Your task to perform on an android device: turn vacation reply on in the gmail app Image 0: 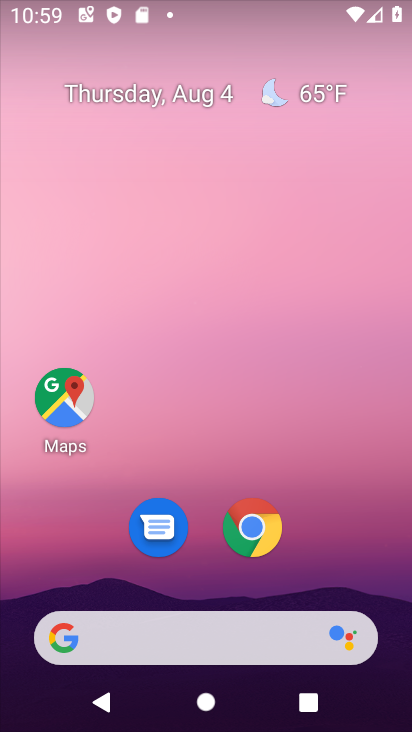
Step 0: drag from (161, 683) to (411, 45)
Your task to perform on an android device: turn vacation reply on in the gmail app Image 1: 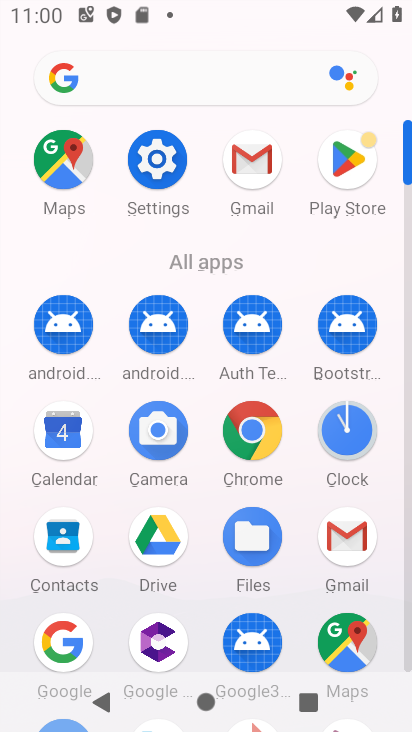
Step 1: click (269, 279)
Your task to perform on an android device: turn vacation reply on in the gmail app Image 2: 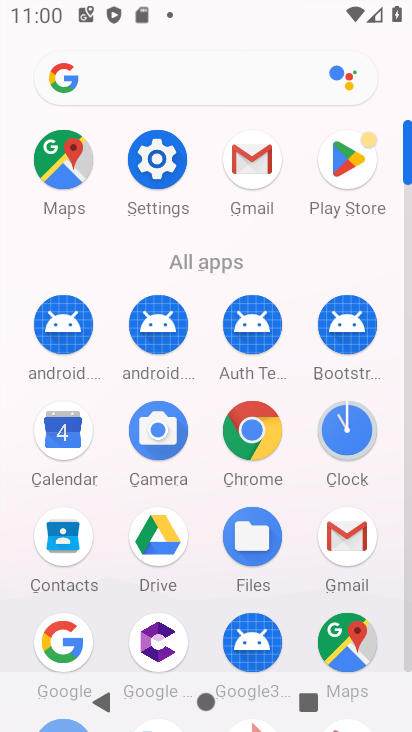
Step 2: click (271, 207)
Your task to perform on an android device: turn vacation reply on in the gmail app Image 3: 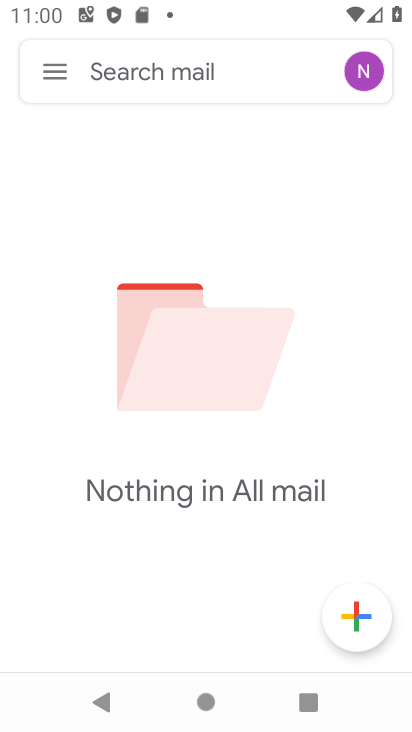
Step 3: click (43, 66)
Your task to perform on an android device: turn vacation reply on in the gmail app Image 4: 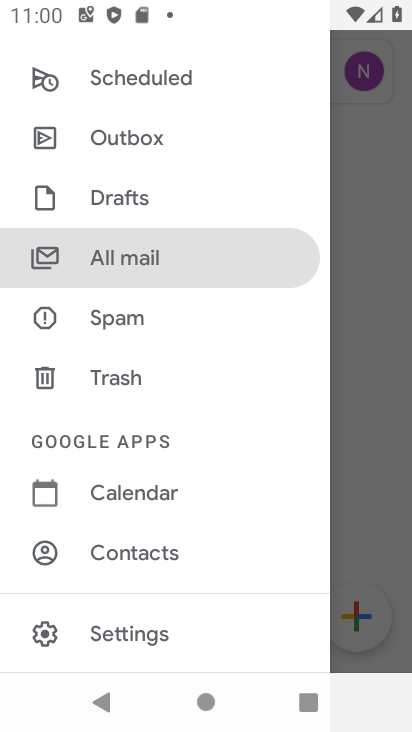
Step 4: click (144, 629)
Your task to perform on an android device: turn vacation reply on in the gmail app Image 5: 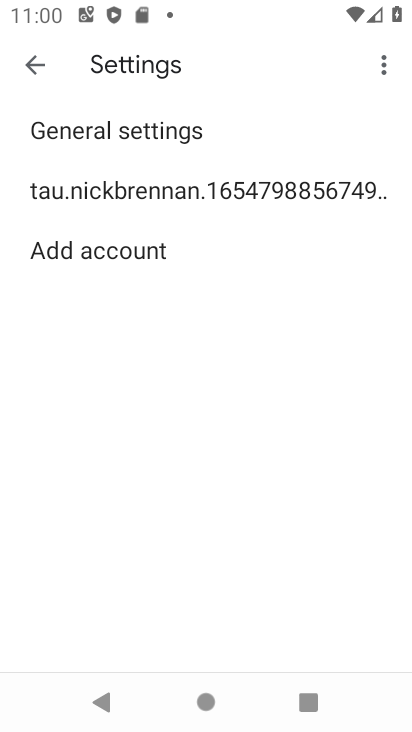
Step 5: click (271, 198)
Your task to perform on an android device: turn vacation reply on in the gmail app Image 6: 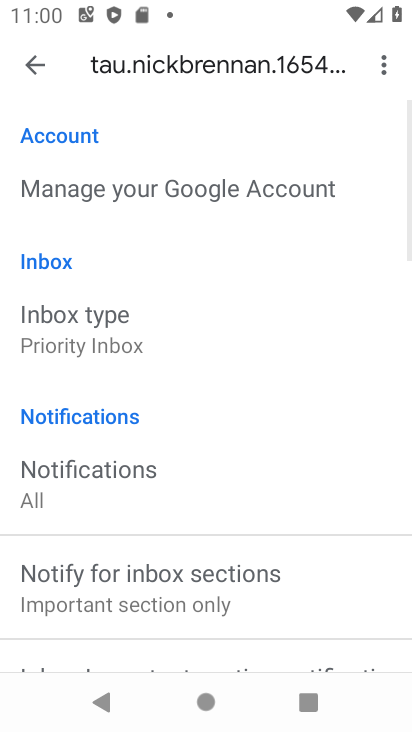
Step 6: drag from (200, 554) to (324, 28)
Your task to perform on an android device: turn vacation reply on in the gmail app Image 7: 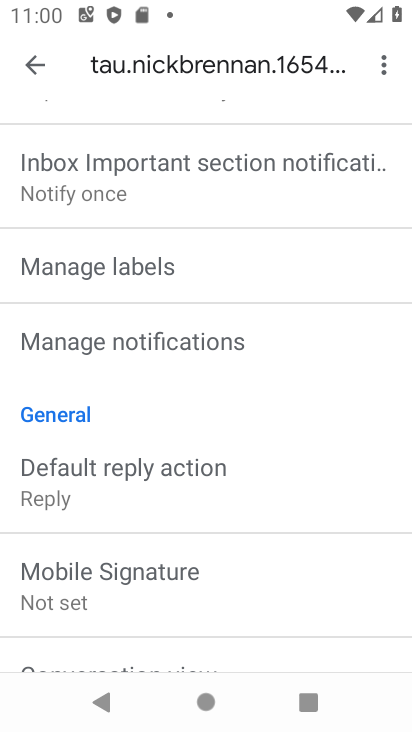
Step 7: drag from (185, 579) to (318, 57)
Your task to perform on an android device: turn vacation reply on in the gmail app Image 8: 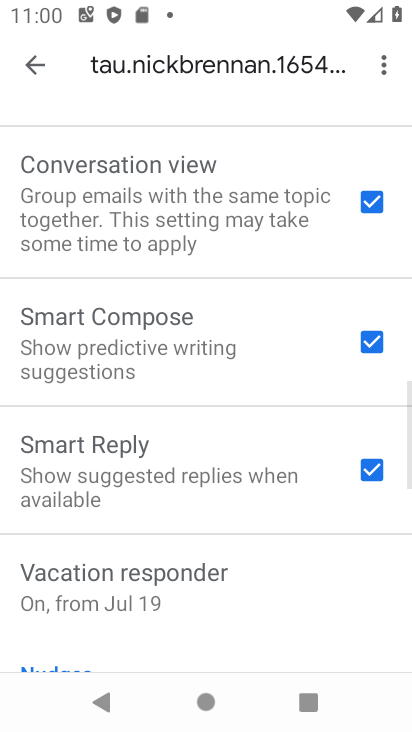
Step 8: click (231, 568)
Your task to perform on an android device: turn vacation reply on in the gmail app Image 9: 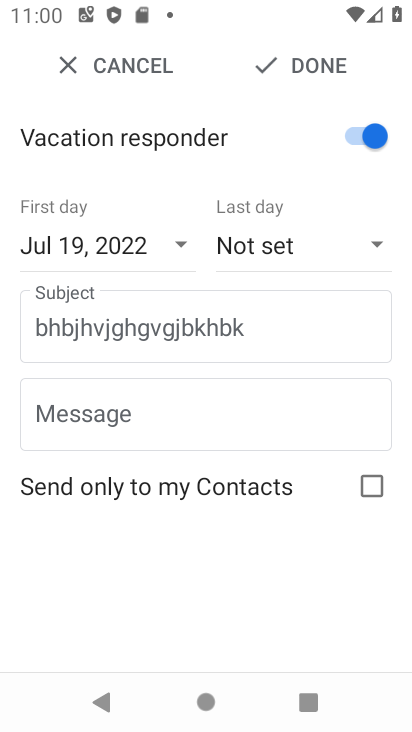
Step 9: click (296, 74)
Your task to perform on an android device: turn vacation reply on in the gmail app Image 10: 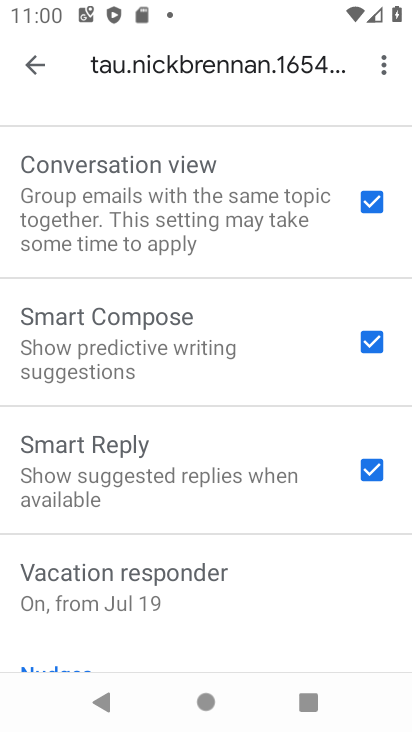
Step 10: task complete